Your task to perform on an android device: Open calendar and show me the first week of next month Image 0: 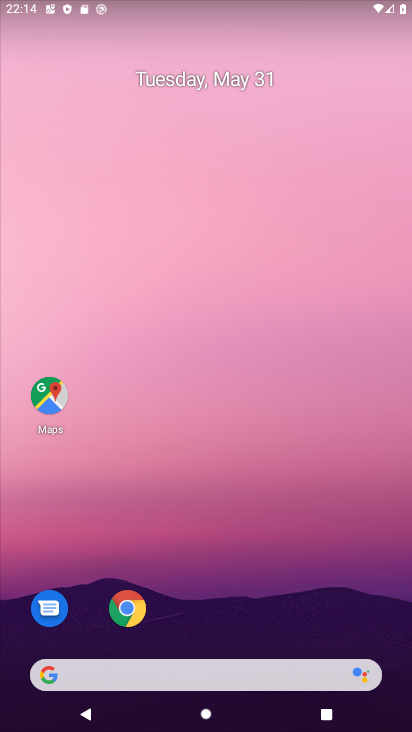
Step 0: drag from (216, 640) to (184, 112)
Your task to perform on an android device: Open calendar and show me the first week of next month Image 1: 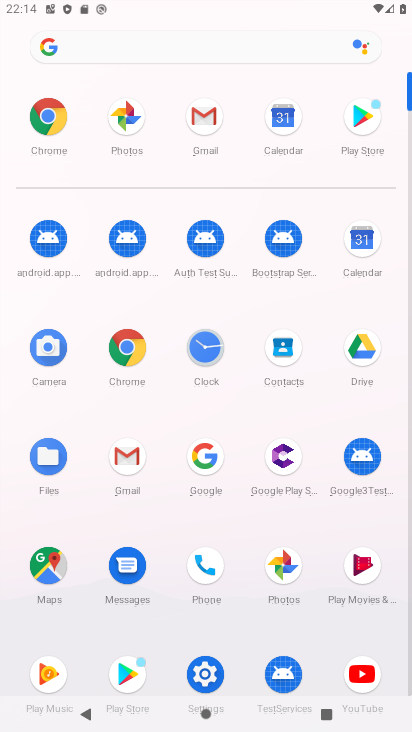
Step 1: click (368, 233)
Your task to perform on an android device: Open calendar and show me the first week of next month Image 2: 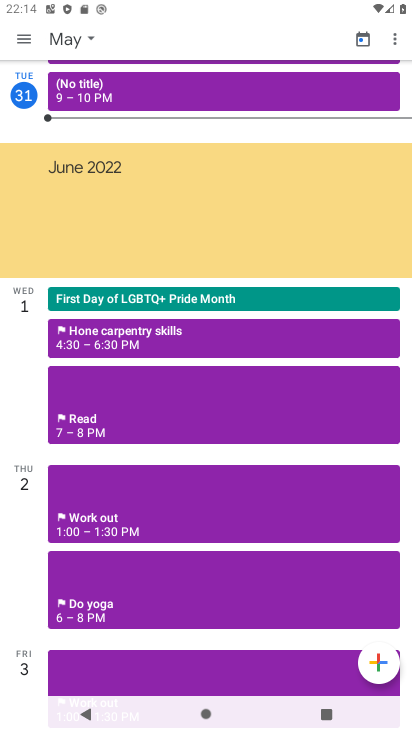
Step 2: click (23, 37)
Your task to perform on an android device: Open calendar and show me the first week of next month Image 3: 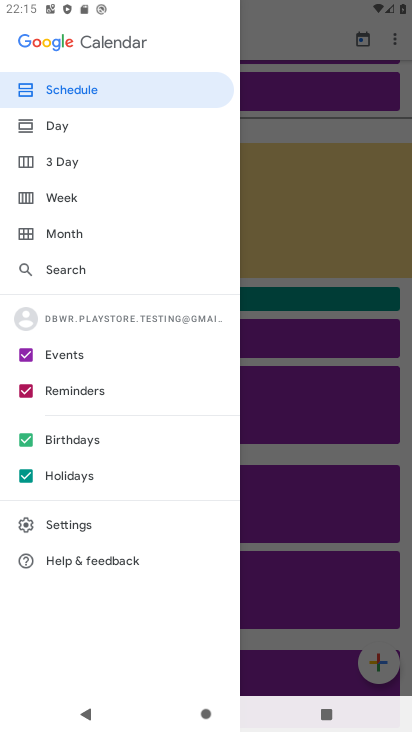
Step 3: click (66, 195)
Your task to perform on an android device: Open calendar and show me the first week of next month Image 4: 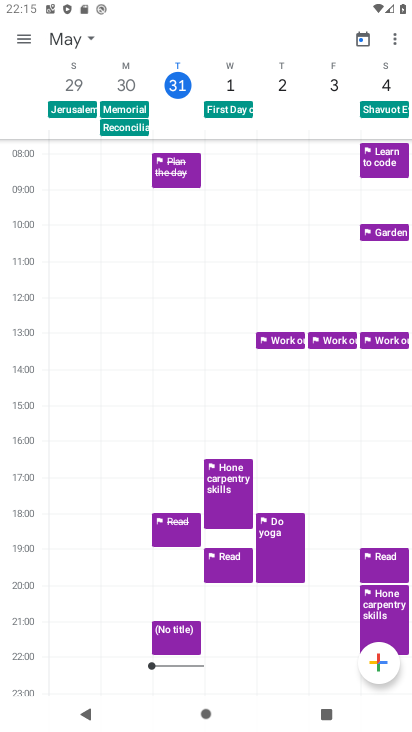
Step 4: task complete